Your task to perform on an android device: toggle data saver in the chrome app Image 0: 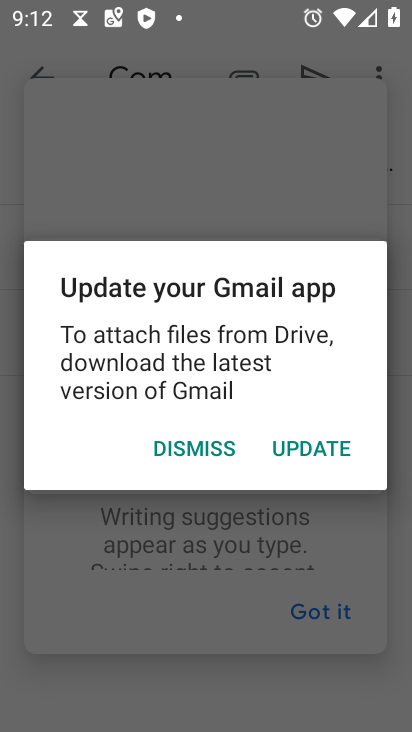
Step 0: drag from (288, 682) to (190, 231)
Your task to perform on an android device: toggle data saver in the chrome app Image 1: 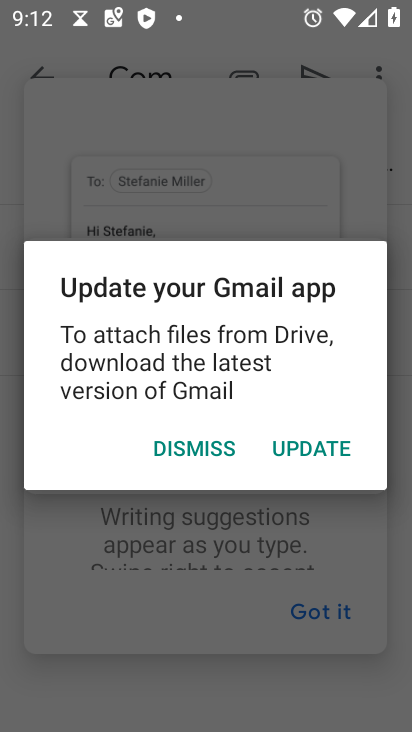
Step 1: click (197, 452)
Your task to perform on an android device: toggle data saver in the chrome app Image 2: 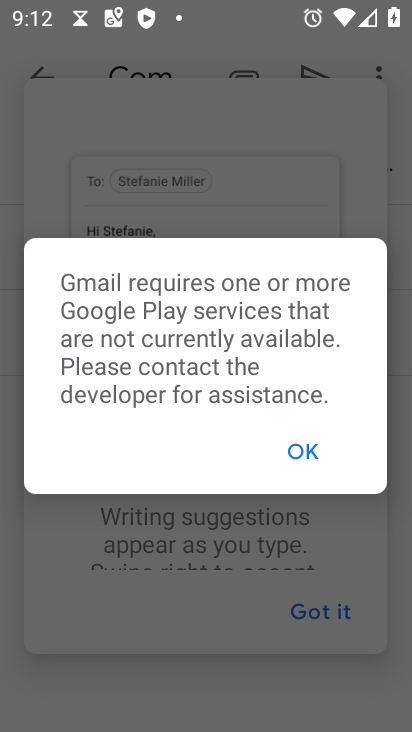
Step 2: click (292, 459)
Your task to perform on an android device: toggle data saver in the chrome app Image 3: 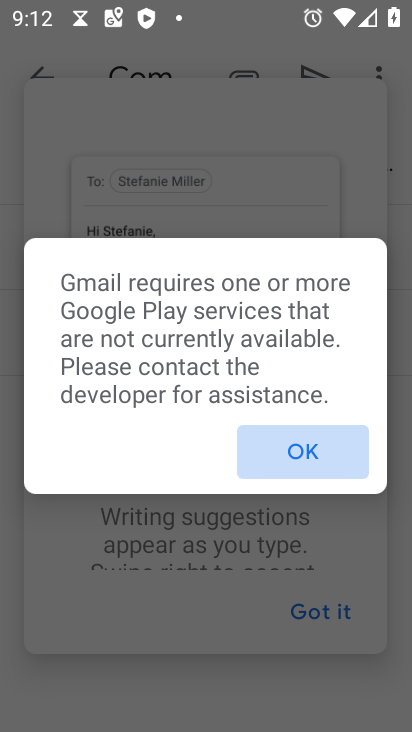
Step 3: click (301, 454)
Your task to perform on an android device: toggle data saver in the chrome app Image 4: 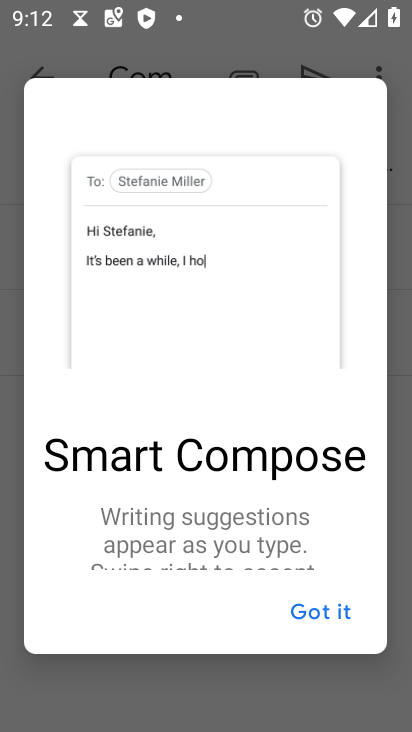
Step 4: click (301, 454)
Your task to perform on an android device: toggle data saver in the chrome app Image 5: 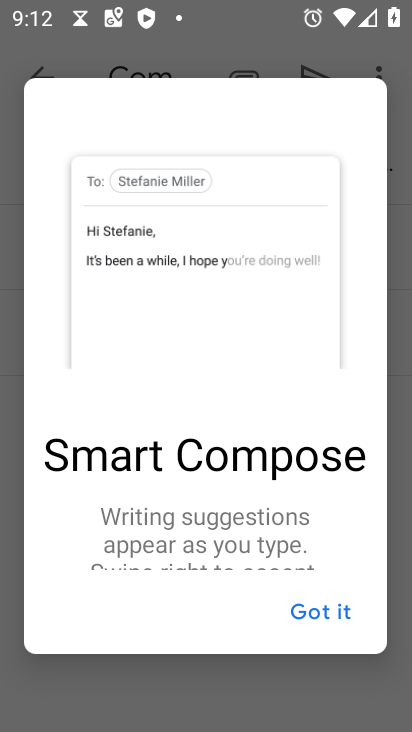
Step 5: click (321, 611)
Your task to perform on an android device: toggle data saver in the chrome app Image 6: 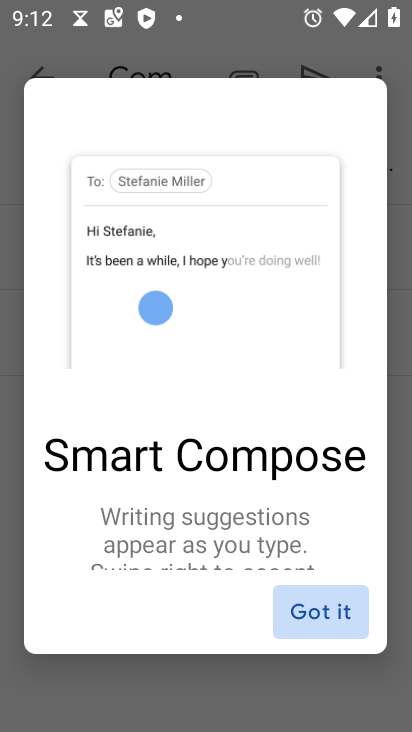
Step 6: click (321, 611)
Your task to perform on an android device: toggle data saver in the chrome app Image 7: 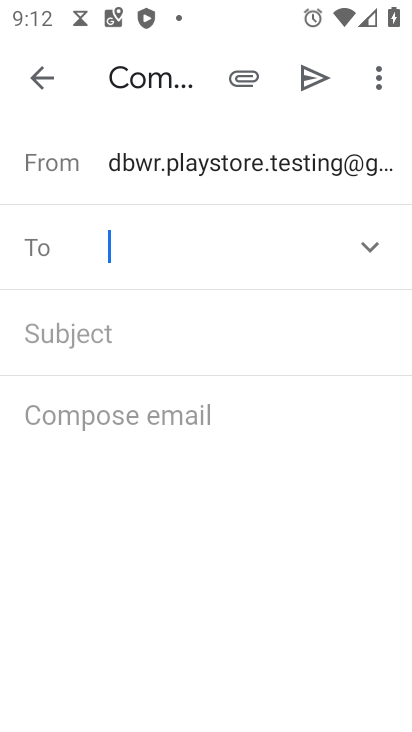
Step 7: click (320, 610)
Your task to perform on an android device: toggle data saver in the chrome app Image 8: 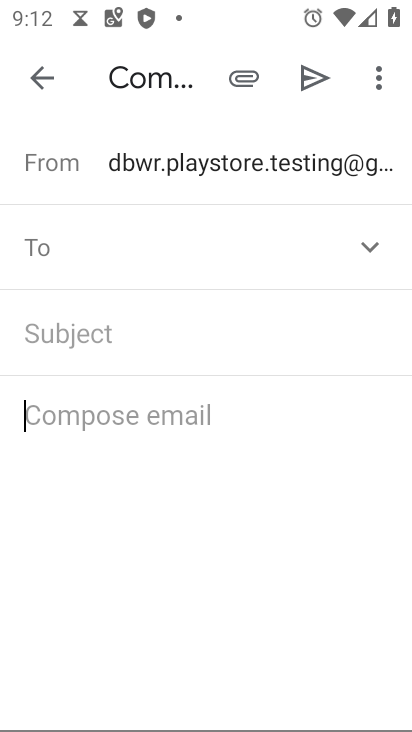
Step 8: click (320, 610)
Your task to perform on an android device: toggle data saver in the chrome app Image 9: 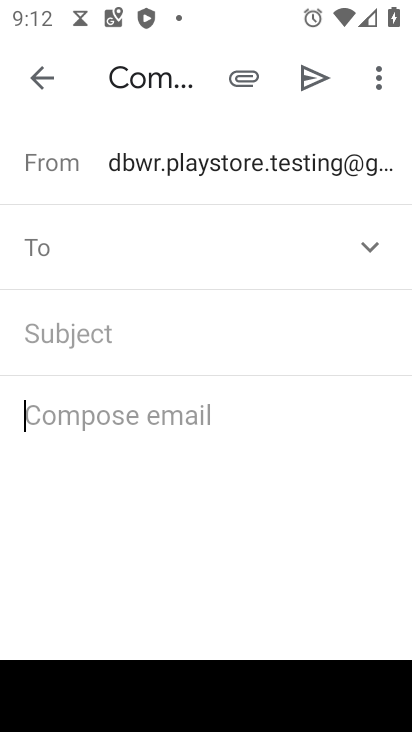
Step 9: click (37, 77)
Your task to perform on an android device: toggle data saver in the chrome app Image 10: 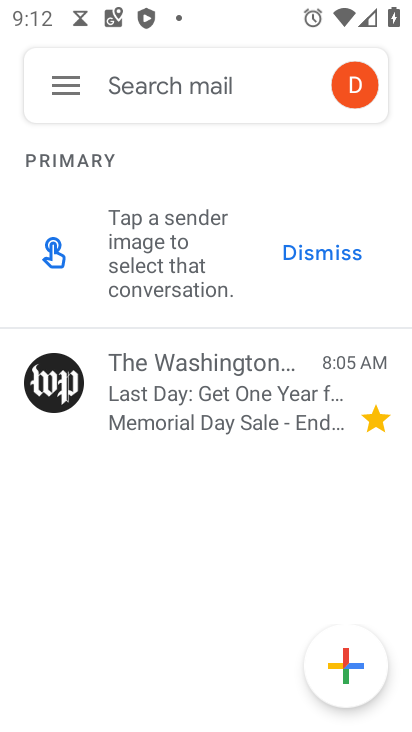
Step 10: press back button
Your task to perform on an android device: toggle data saver in the chrome app Image 11: 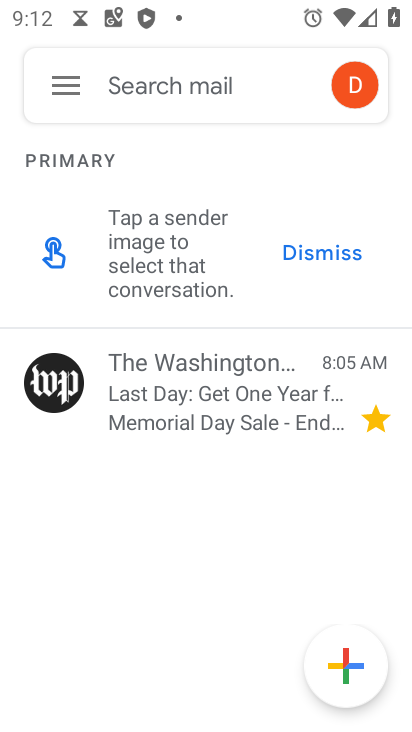
Step 11: press back button
Your task to perform on an android device: toggle data saver in the chrome app Image 12: 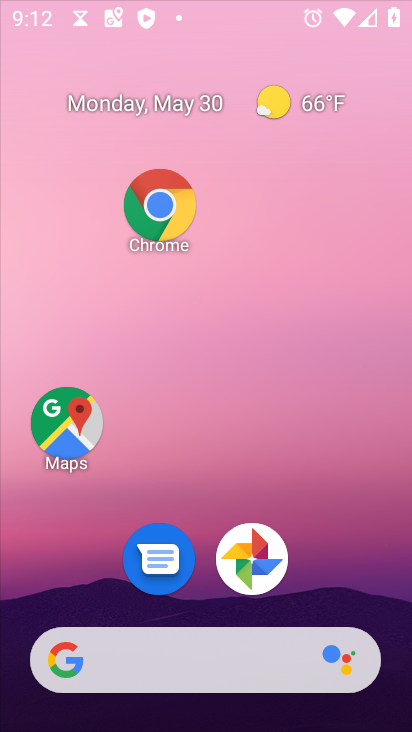
Step 12: press back button
Your task to perform on an android device: toggle data saver in the chrome app Image 13: 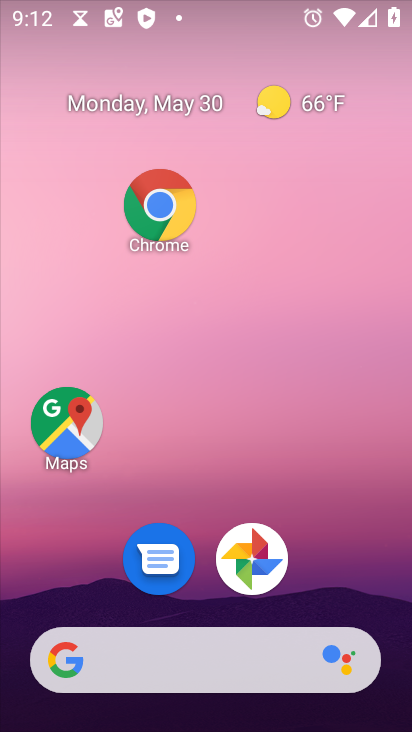
Step 13: press back button
Your task to perform on an android device: toggle data saver in the chrome app Image 14: 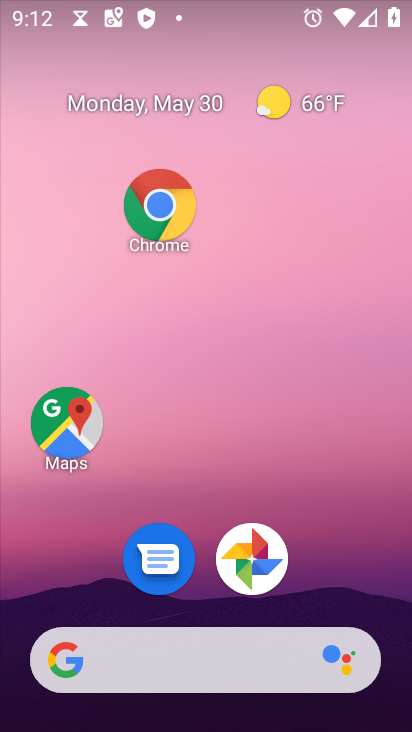
Step 14: drag from (226, 698) to (223, 312)
Your task to perform on an android device: toggle data saver in the chrome app Image 15: 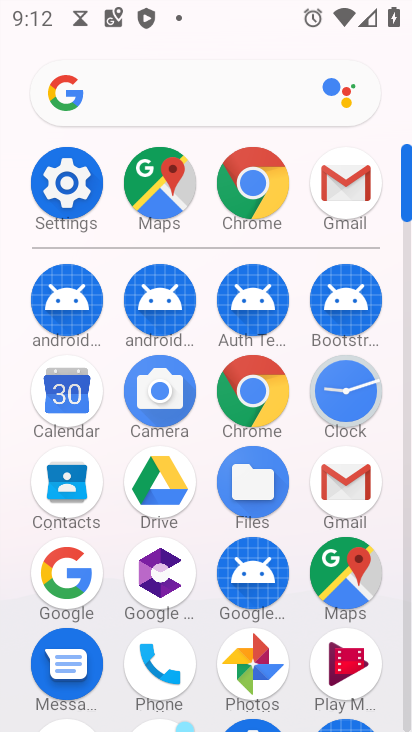
Step 15: click (256, 192)
Your task to perform on an android device: toggle data saver in the chrome app Image 16: 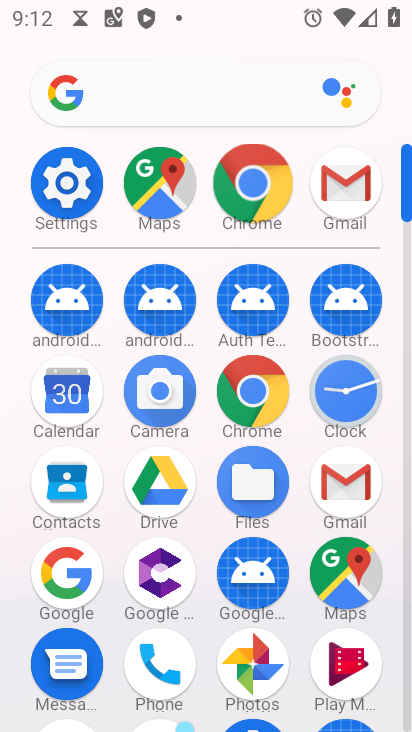
Step 16: click (256, 190)
Your task to perform on an android device: toggle data saver in the chrome app Image 17: 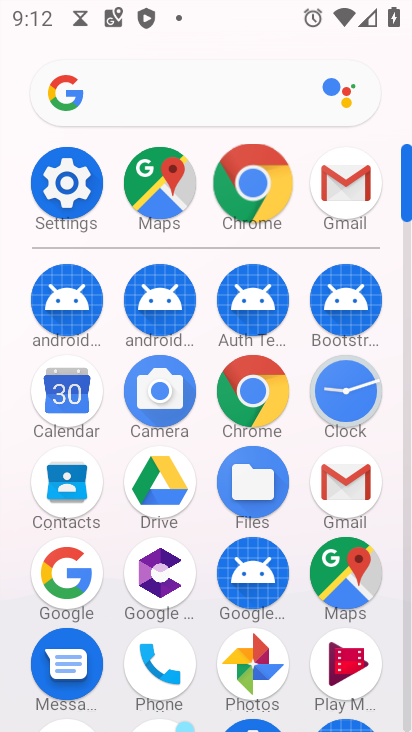
Step 17: click (256, 190)
Your task to perform on an android device: toggle data saver in the chrome app Image 18: 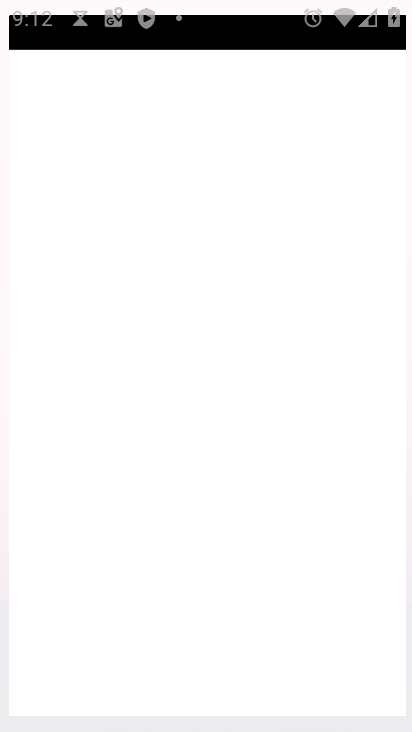
Step 18: click (256, 190)
Your task to perform on an android device: toggle data saver in the chrome app Image 19: 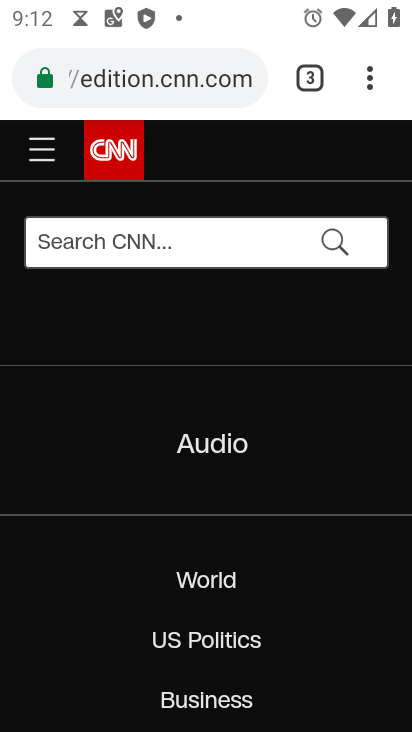
Step 19: press back button
Your task to perform on an android device: toggle data saver in the chrome app Image 20: 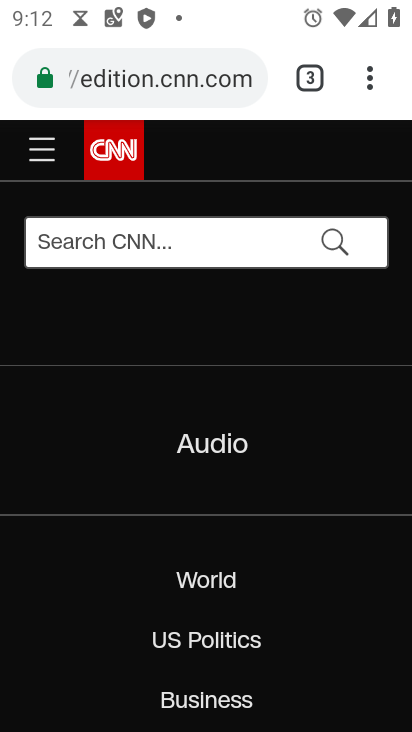
Step 20: press back button
Your task to perform on an android device: toggle data saver in the chrome app Image 21: 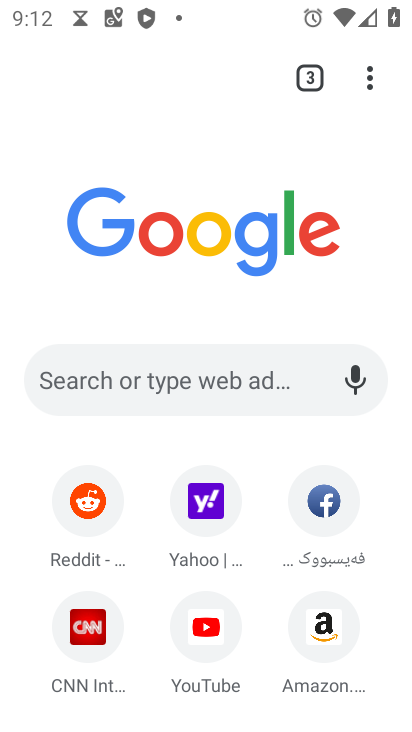
Step 21: press back button
Your task to perform on an android device: toggle data saver in the chrome app Image 22: 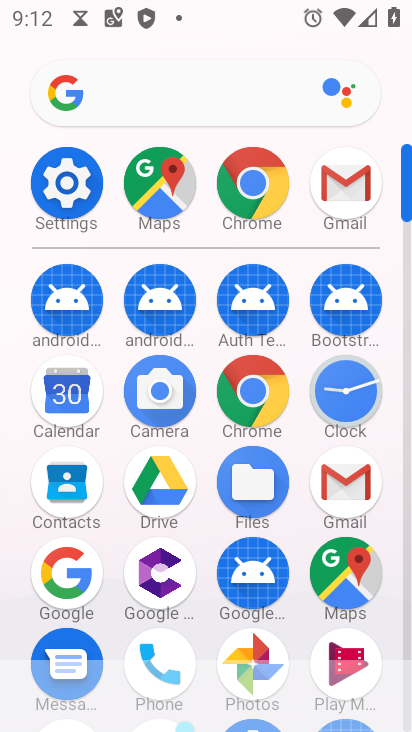
Step 22: press back button
Your task to perform on an android device: toggle data saver in the chrome app Image 23: 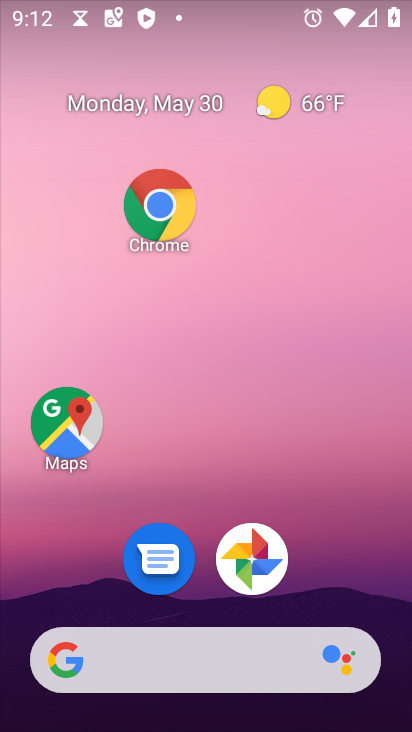
Step 23: drag from (257, 712) to (142, 253)
Your task to perform on an android device: toggle data saver in the chrome app Image 24: 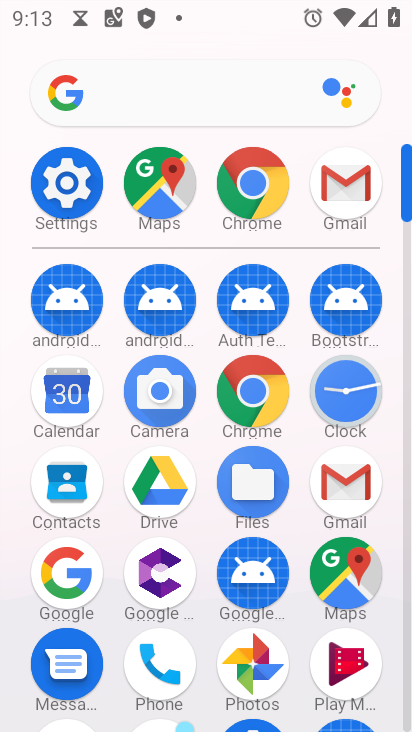
Step 24: click (267, 183)
Your task to perform on an android device: toggle data saver in the chrome app Image 25: 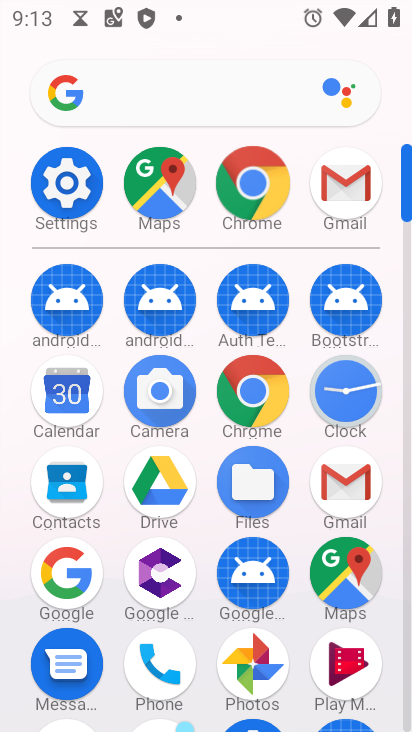
Step 25: click (266, 186)
Your task to perform on an android device: toggle data saver in the chrome app Image 26: 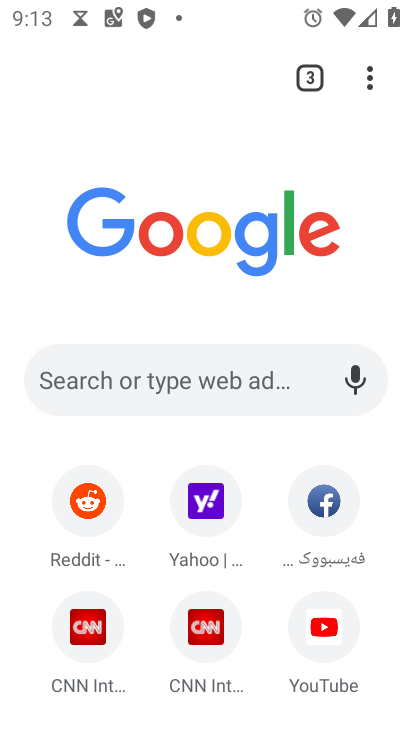
Step 26: press back button
Your task to perform on an android device: toggle data saver in the chrome app Image 27: 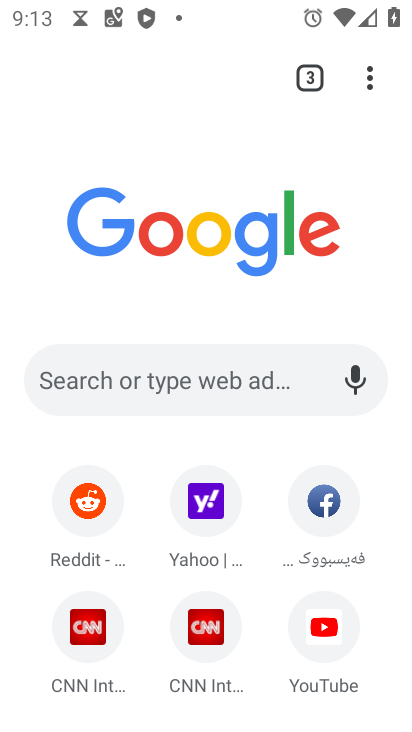
Step 27: press back button
Your task to perform on an android device: toggle data saver in the chrome app Image 28: 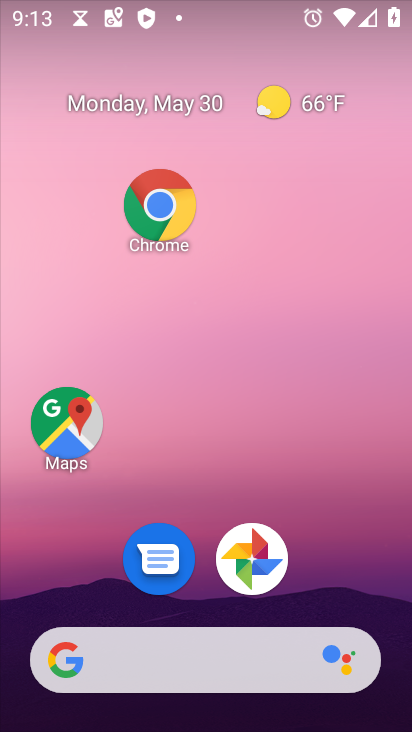
Step 28: press home button
Your task to perform on an android device: toggle data saver in the chrome app Image 29: 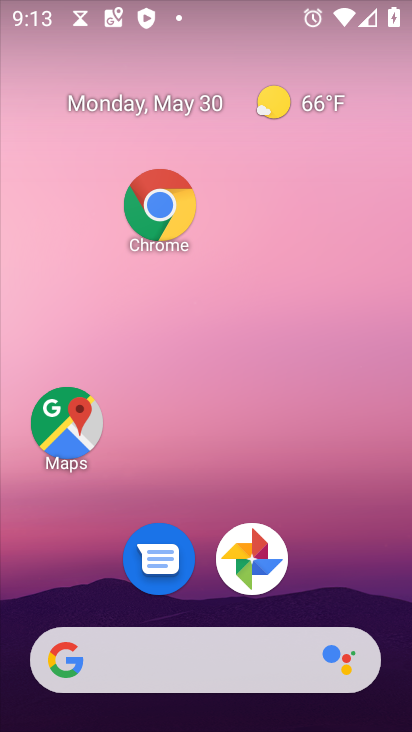
Step 29: drag from (288, 652) to (203, 179)
Your task to perform on an android device: toggle data saver in the chrome app Image 30: 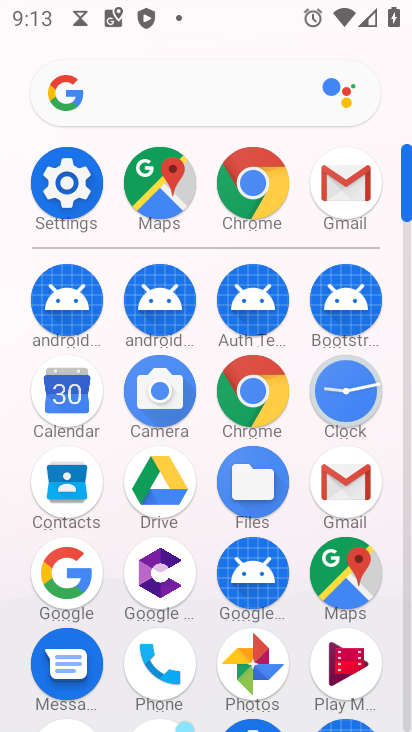
Step 30: click (251, 191)
Your task to perform on an android device: toggle data saver in the chrome app Image 31: 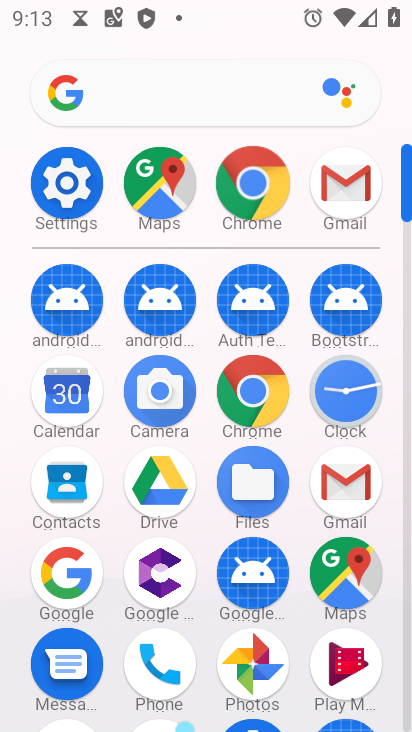
Step 31: click (251, 191)
Your task to perform on an android device: toggle data saver in the chrome app Image 32: 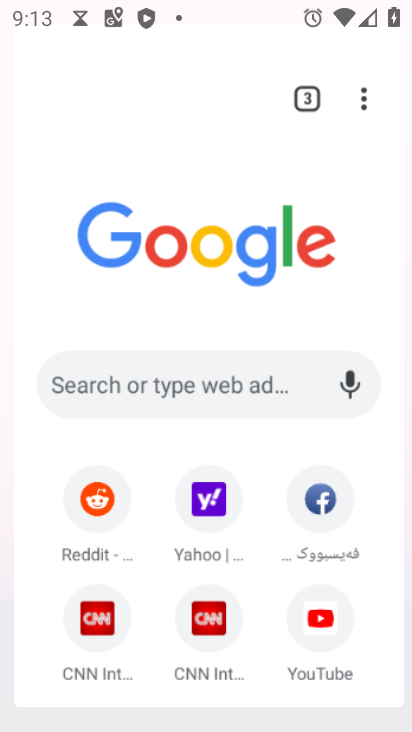
Step 32: click (253, 192)
Your task to perform on an android device: toggle data saver in the chrome app Image 33: 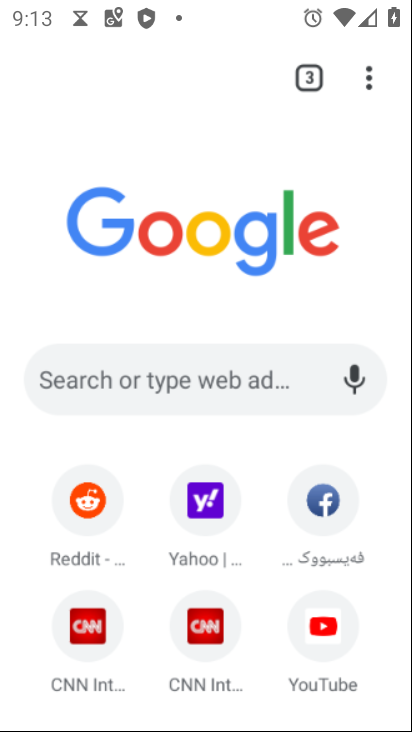
Step 33: click (253, 192)
Your task to perform on an android device: toggle data saver in the chrome app Image 34: 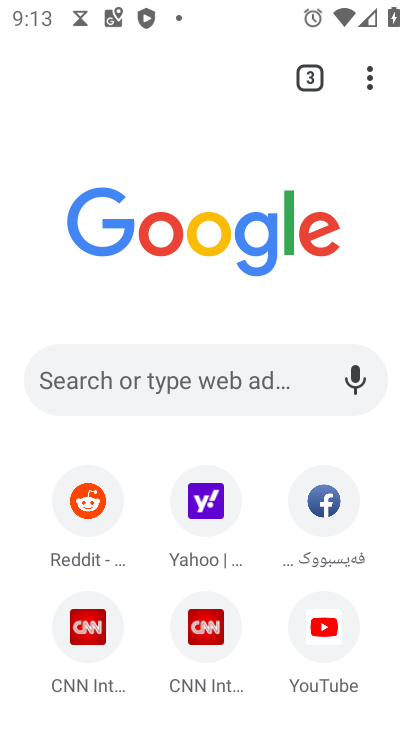
Step 34: drag from (367, 91) to (78, 613)
Your task to perform on an android device: toggle data saver in the chrome app Image 35: 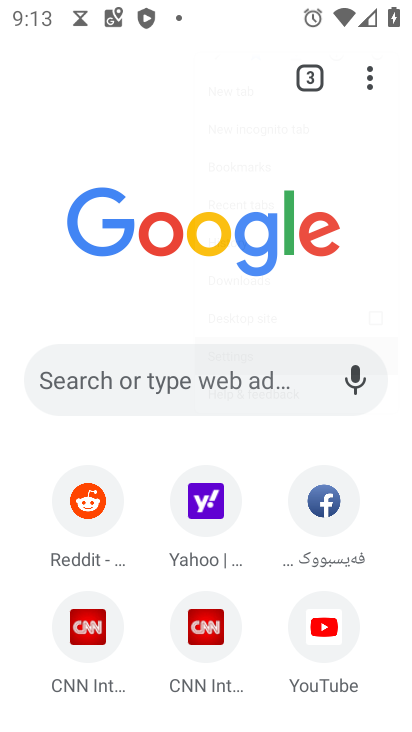
Step 35: click (78, 613)
Your task to perform on an android device: toggle data saver in the chrome app Image 36: 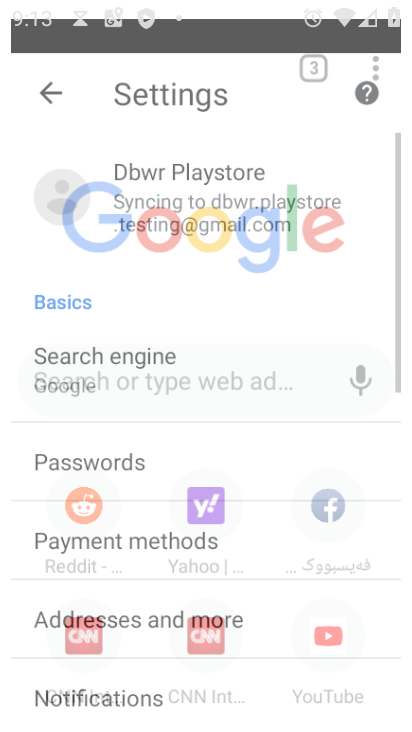
Step 36: click (78, 613)
Your task to perform on an android device: toggle data saver in the chrome app Image 37: 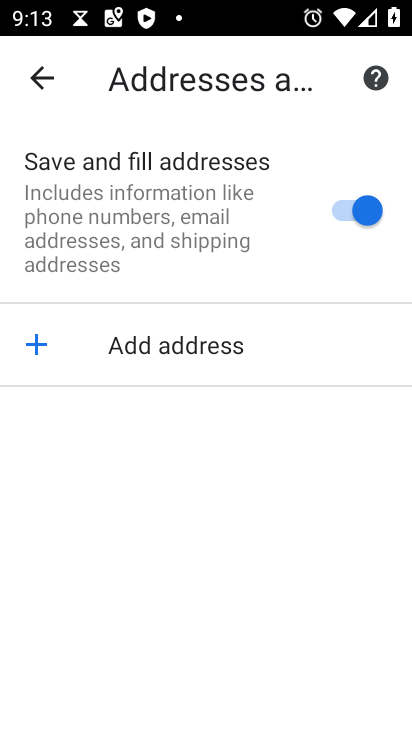
Step 37: click (37, 76)
Your task to perform on an android device: toggle data saver in the chrome app Image 38: 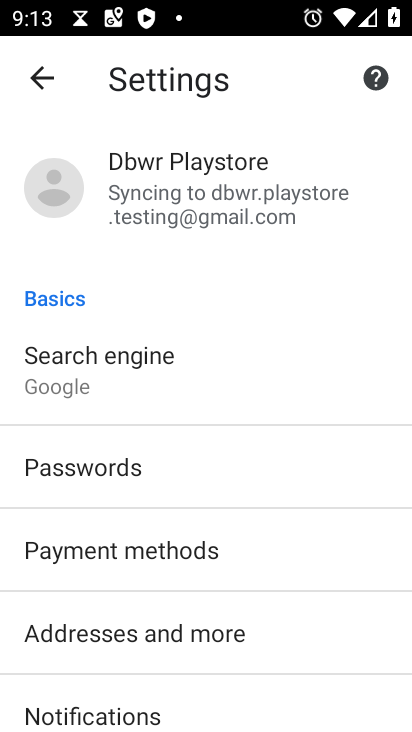
Step 38: drag from (197, 539) to (218, 294)
Your task to perform on an android device: toggle data saver in the chrome app Image 39: 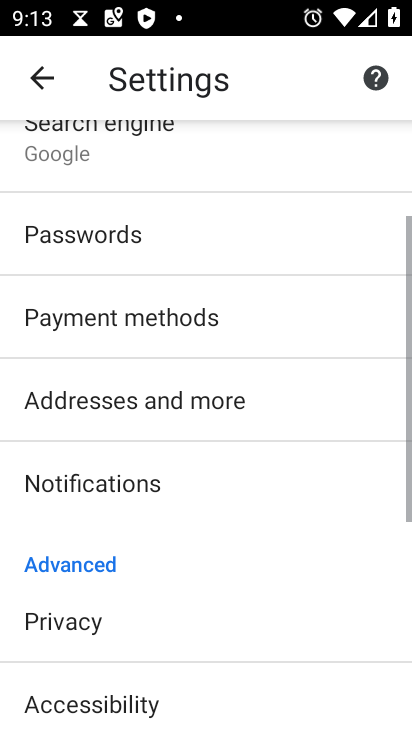
Step 39: drag from (215, 519) to (190, 158)
Your task to perform on an android device: toggle data saver in the chrome app Image 40: 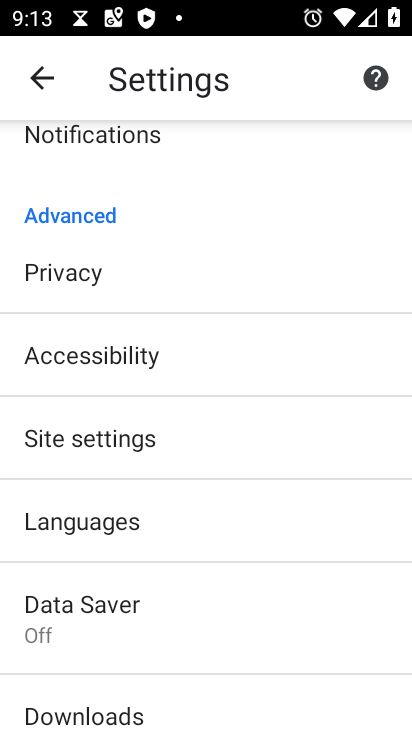
Step 40: click (86, 608)
Your task to perform on an android device: toggle data saver in the chrome app Image 41: 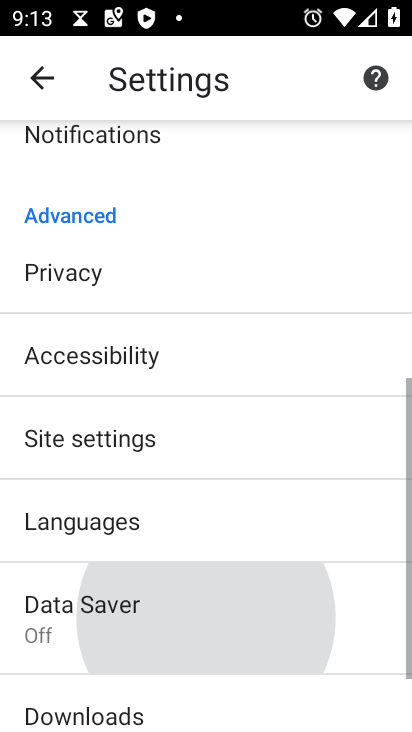
Step 41: click (86, 608)
Your task to perform on an android device: toggle data saver in the chrome app Image 42: 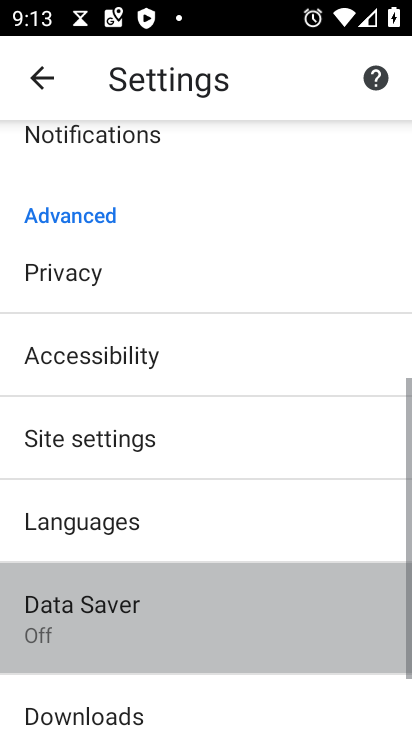
Step 42: click (85, 608)
Your task to perform on an android device: toggle data saver in the chrome app Image 43: 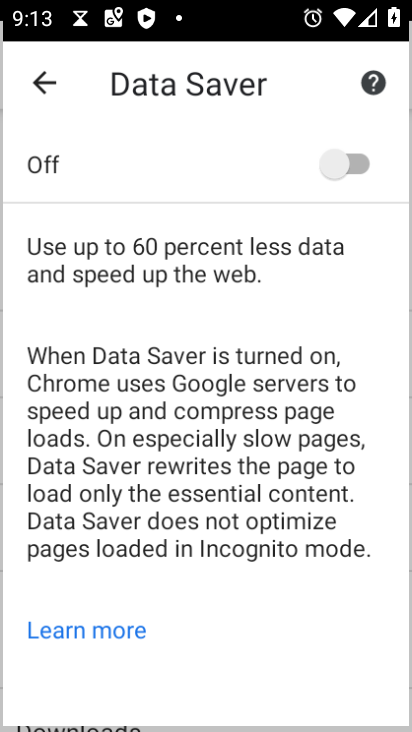
Step 43: click (85, 608)
Your task to perform on an android device: toggle data saver in the chrome app Image 44: 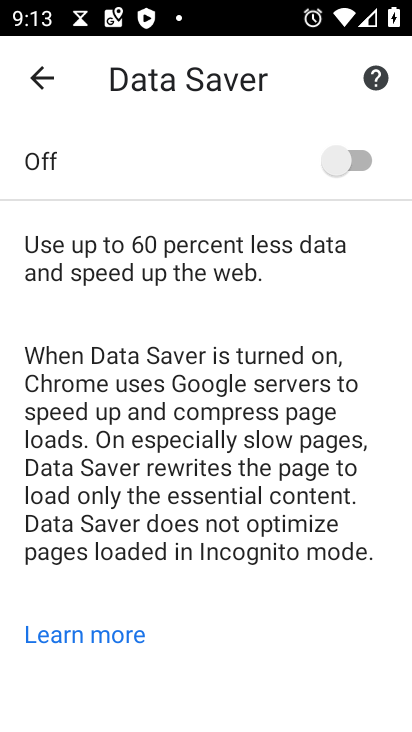
Step 44: click (330, 169)
Your task to perform on an android device: toggle data saver in the chrome app Image 45: 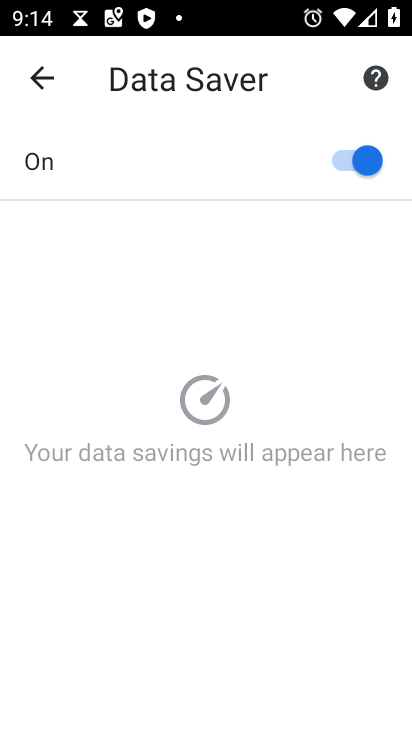
Step 45: task complete